Your task to perform on an android device: Open CNN.com Image 0: 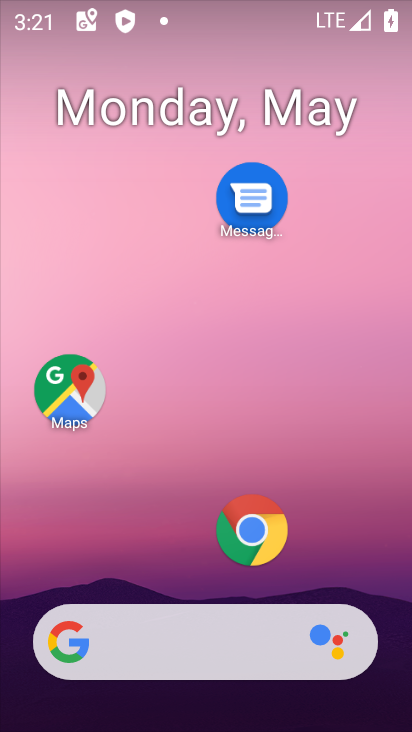
Step 0: click (271, 524)
Your task to perform on an android device: Open CNN.com Image 1: 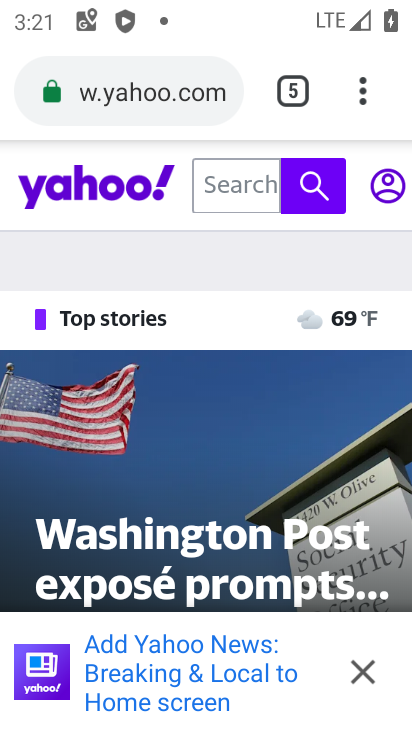
Step 1: click (284, 97)
Your task to perform on an android device: Open CNN.com Image 2: 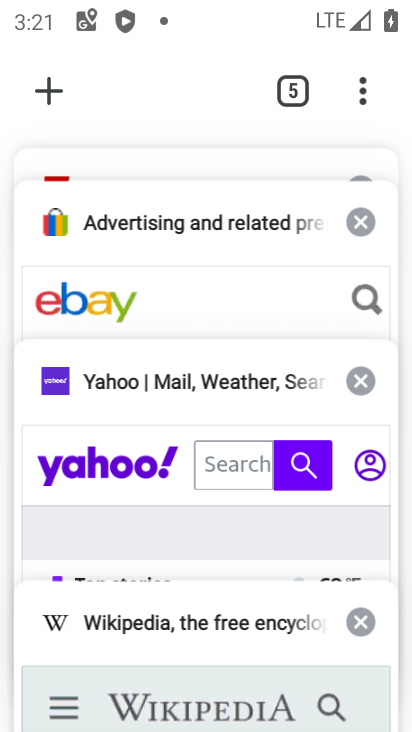
Step 2: drag from (171, 180) to (180, 670)
Your task to perform on an android device: Open CNN.com Image 3: 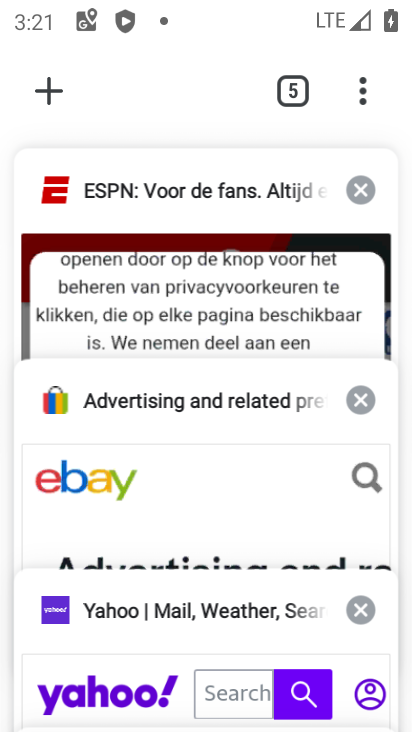
Step 3: click (51, 86)
Your task to perform on an android device: Open CNN.com Image 4: 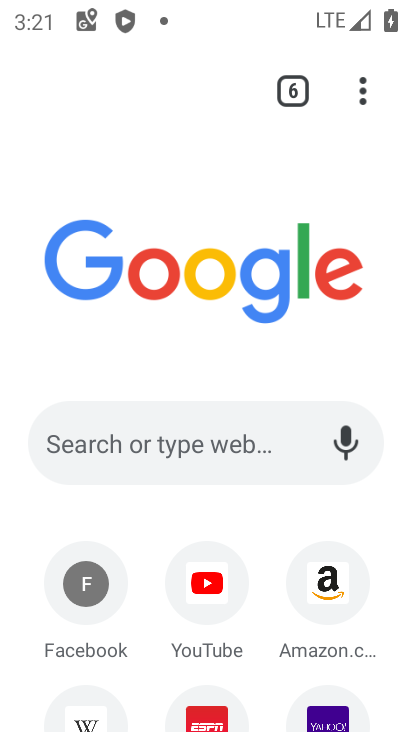
Step 4: click (173, 449)
Your task to perform on an android device: Open CNN.com Image 5: 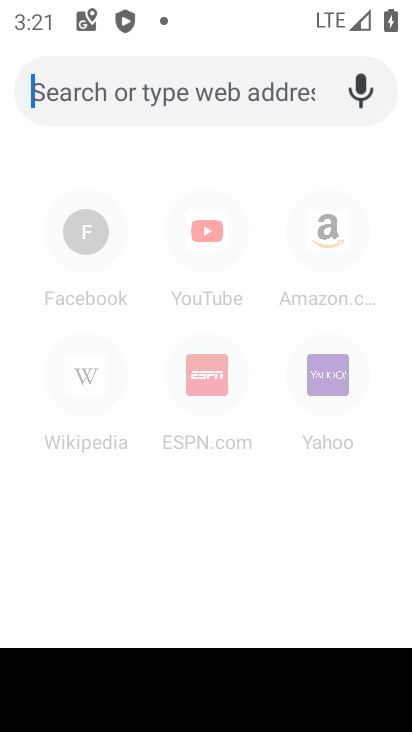
Step 5: type "cnn.com"
Your task to perform on an android device: Open CNN.com Image 6: 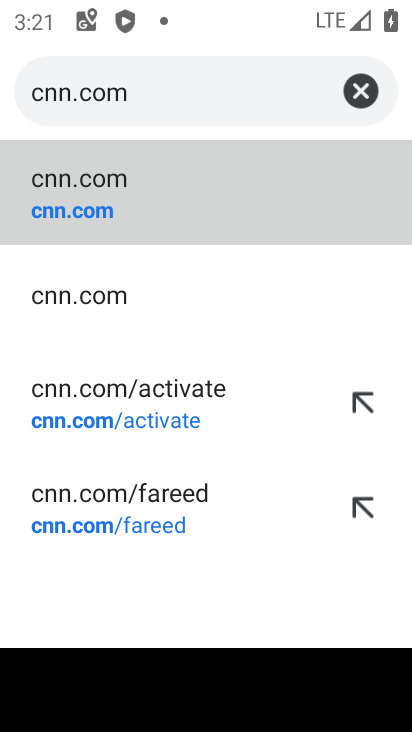
Step 6: click (125, 183)
Your task to perform on an android device: Open CNN.com Image 7: 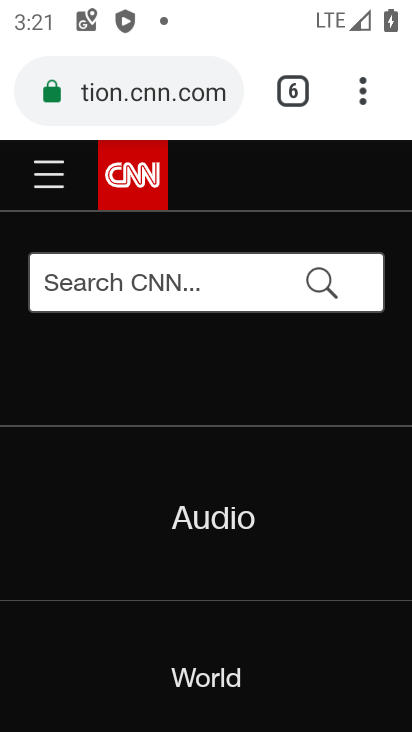
Step 7: task complete